Your task to perform on an android device: What's the weather? Image 0: 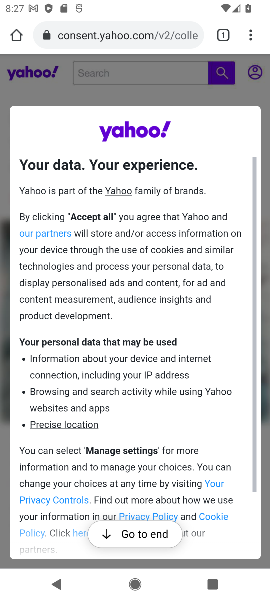
Step 0: press home button
Your task to perform on an android device: What's the weather? Image 1: 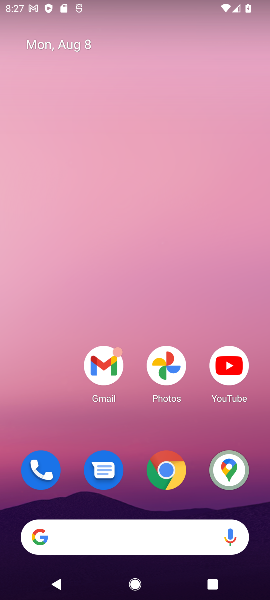
Step 1: drag from (102, 520) to (117, 149)
Your task to perform on an android device: What's the weather? Image 2: 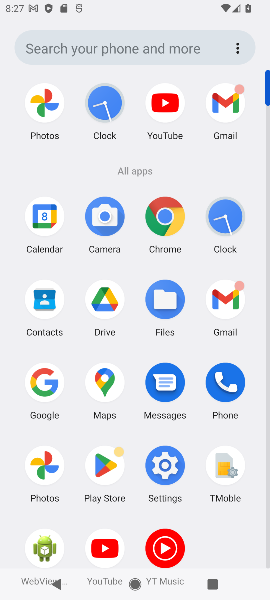
Step 2: click (40, 384)
Your task to perform on an android device: What's the weather? Image 3: 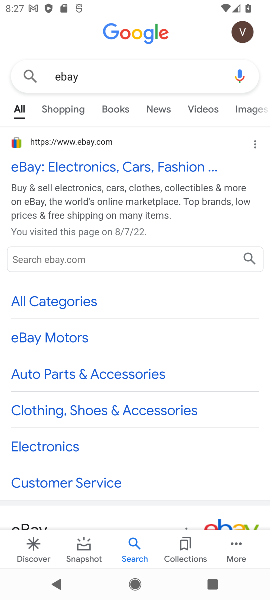
Step 3: click (117, 75)
Your task to perform on an android device: What's the weather? Image 4: 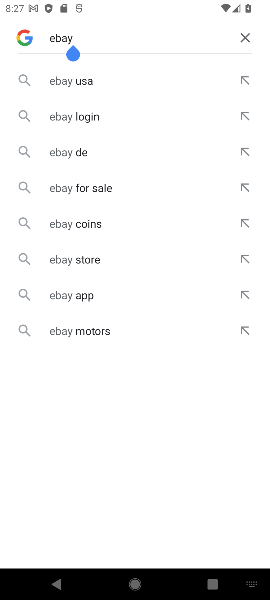
Step 4: click (245, 41)
Your task to perform on an android device: What's the weather? Image 5: 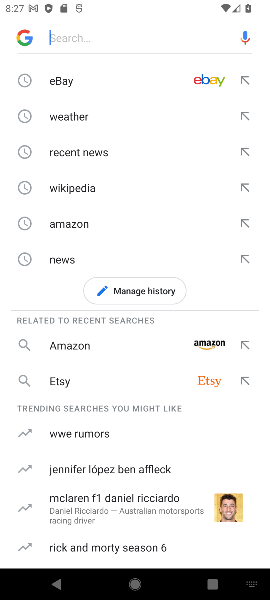
Step 5: click (76, 117)
Your task to perform on an android device: What's the weather? Image 6: 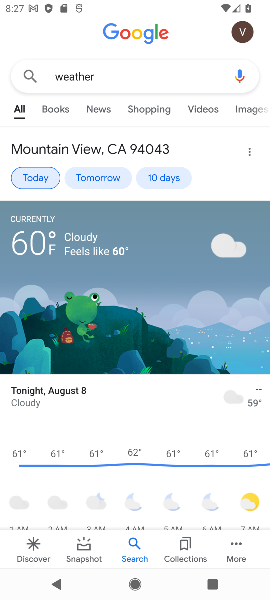
Step 6: task complete